Your task to perform on an android device: turn notification dots off Image 0: 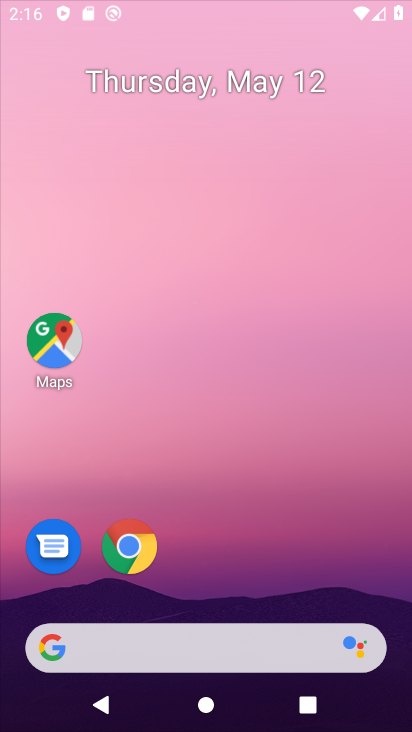
Step 0: click (131, 553)
Your task to perform on an android device: turn notification dots off Image 1: 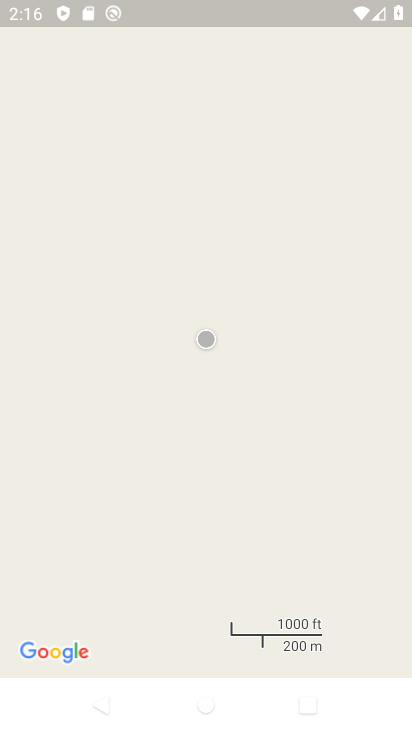
Step 1: press home button
Your task to perform on an android device: turn notification dots off Image 2: 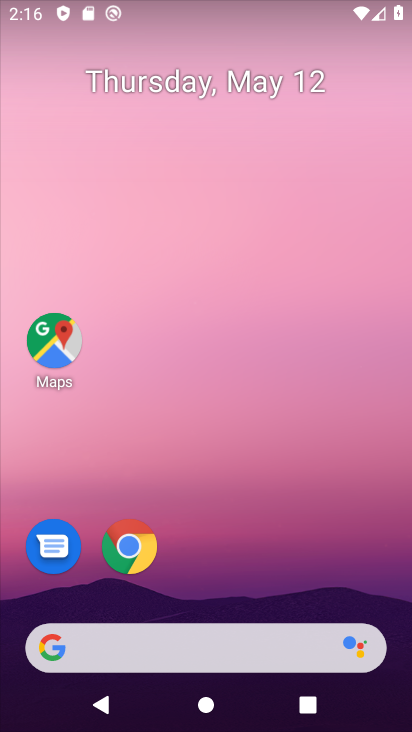
Step 2: drag from (234, 602) to (321, 78)
Your task to perform on an android device: turn notification dots off Image 3: 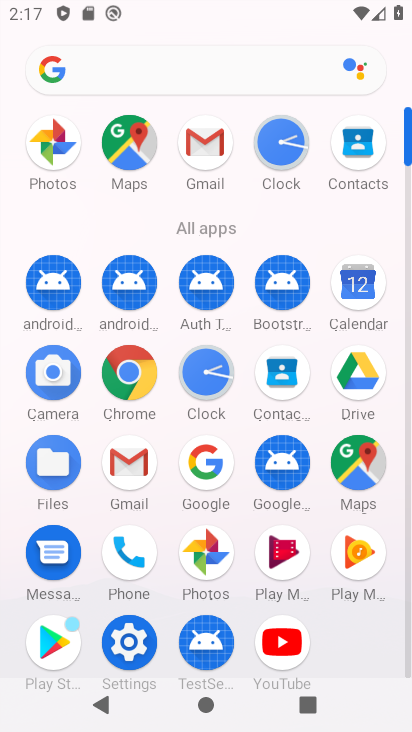
Step 3: click (131, 648)
Your task to perform on an android device: turn notification dots off Image 4: 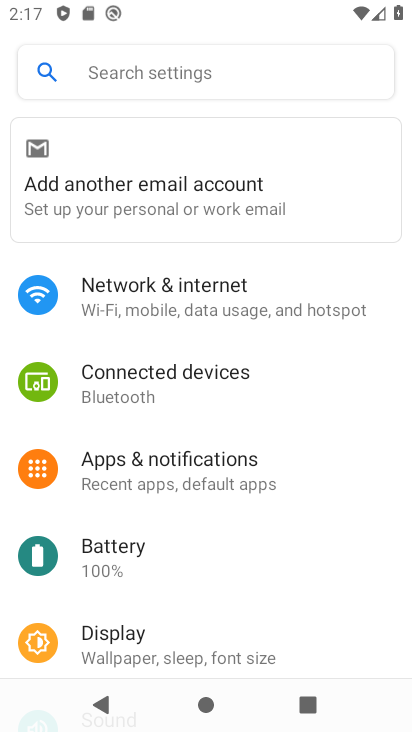
Step 4: click (192, 498)
Your task to perform on an android device: turn notification dots off Image 5: 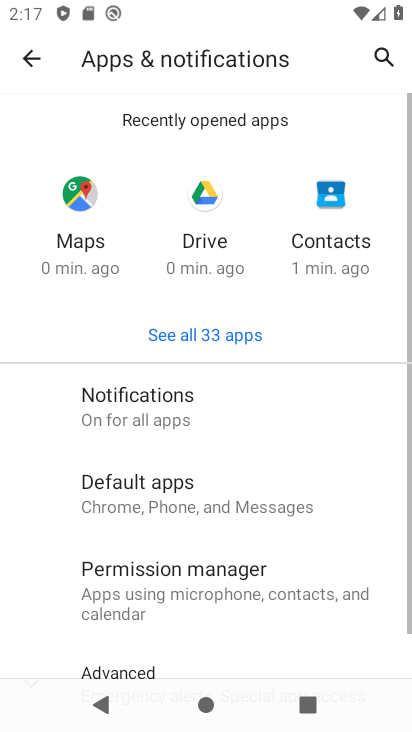
Step 5: click (169, 428)
Your task to perform on an android device: turn notification dots off Image 6: 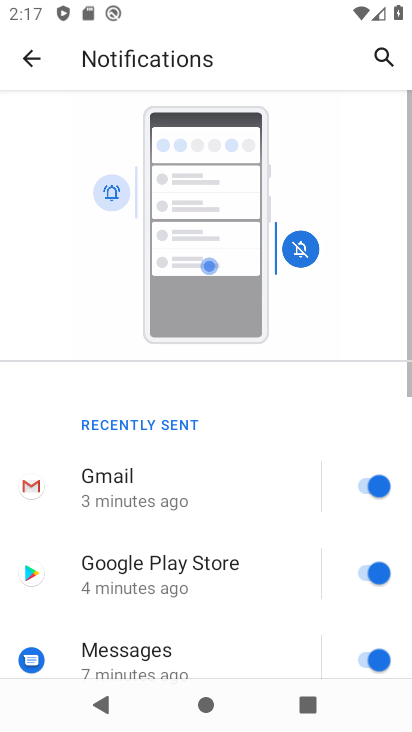
Step 6: drag from (234, 372) to (388, 71)
Your task to perform on an android device: turn notification dots off Image 7: 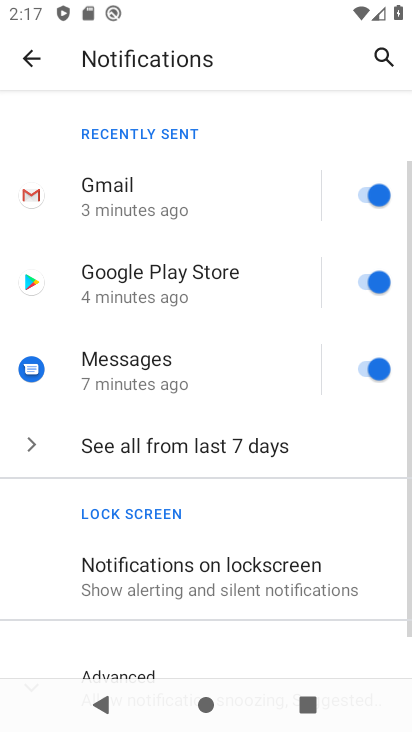
Step 7: drag from (249, 601) to (326, 255)
Your task to perform on an android device: turn notification dots off Image 8: 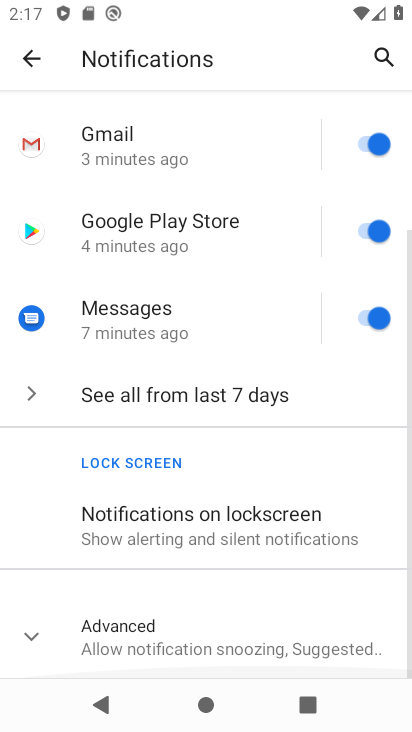
Step 8: click (192, 626)
Your task to perform on an android device: turn notification dots off Image 9: 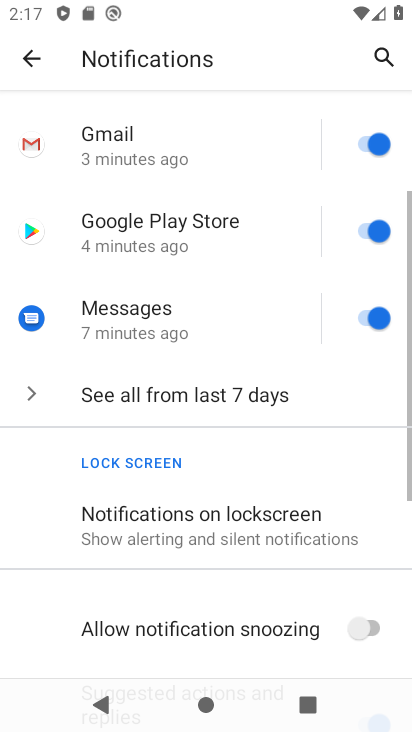
Step 9: drag from (192, 626) to (316, 163)
Your task to perform on an android device: turn notification dots off Image 10: 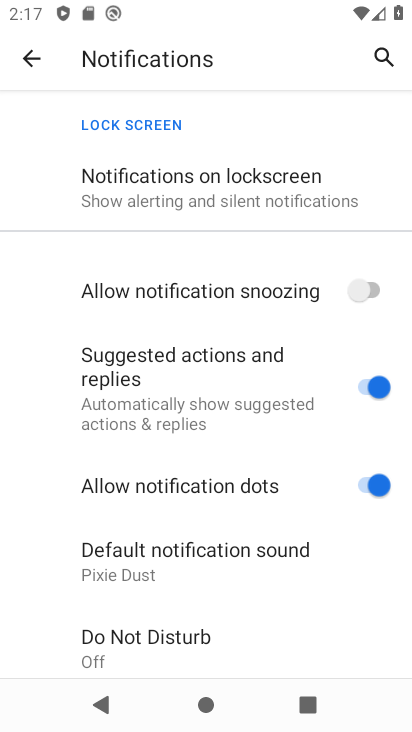
Step 10: click (367, 472)
Your task to perform on an android device: turn notification dots off Image 11: 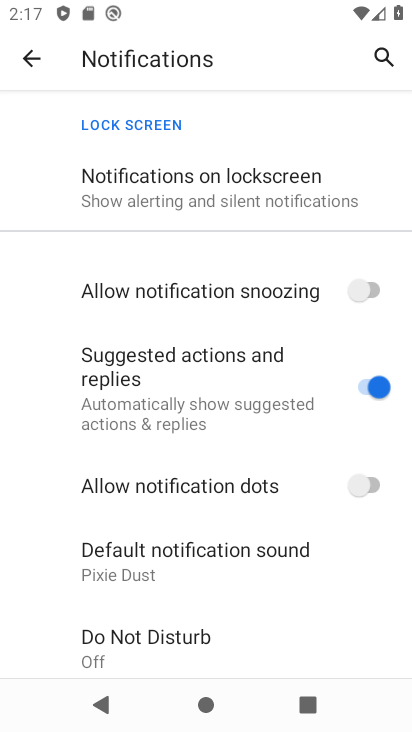
Step 11: task complete